Your task to perform on an android device: Open Google Chrome and click the shortcut for Amazon.com Image 0: 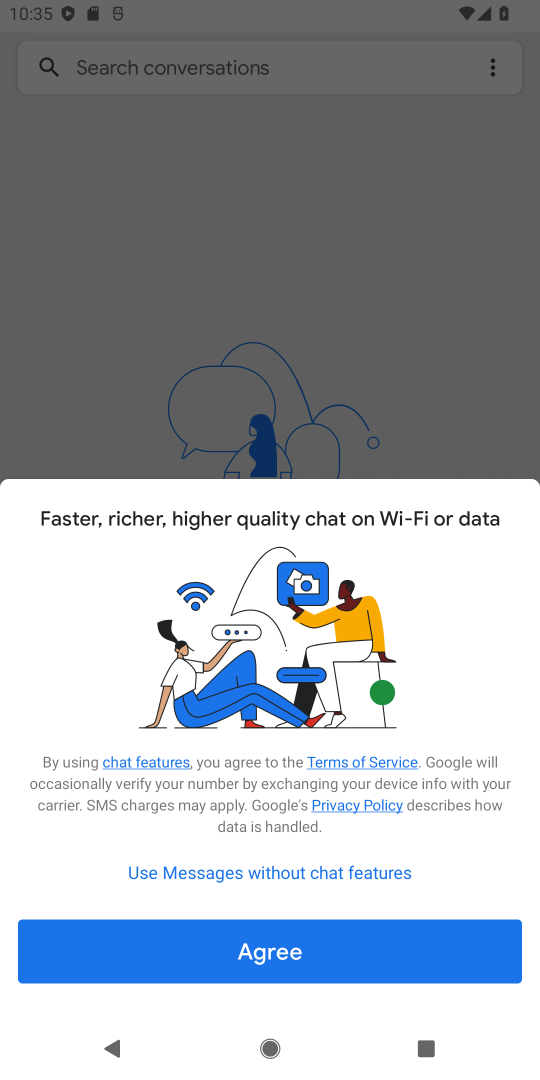
Step 0: press home button
Your task to perform on an android device: Open Google Chrome and click the shortcut for Amazon.com Image 1: 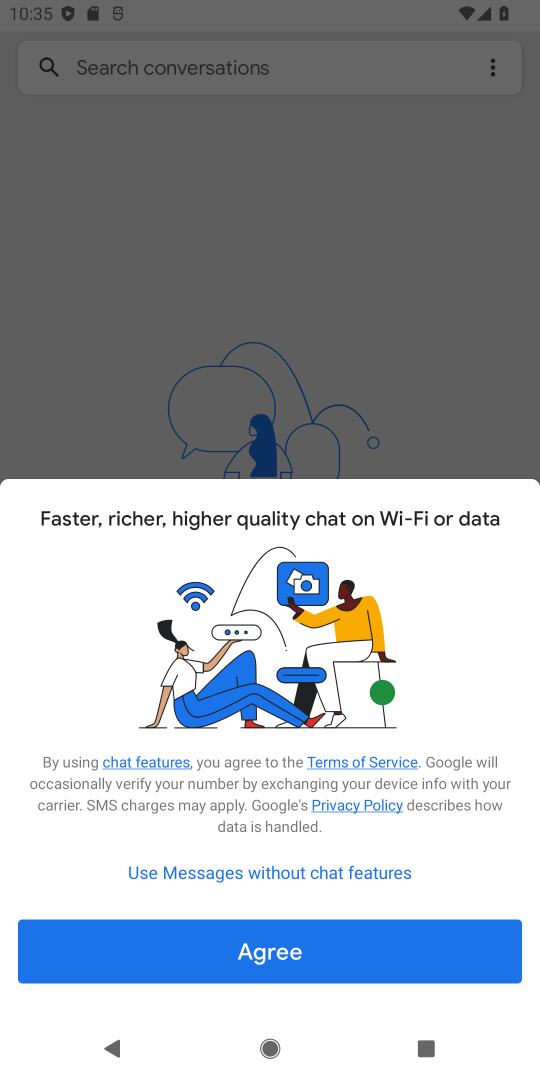
Step 1: press home button
Your task to perform on an android device: Open Google Chrome and click the shortcut for Amazon.com Image 2: 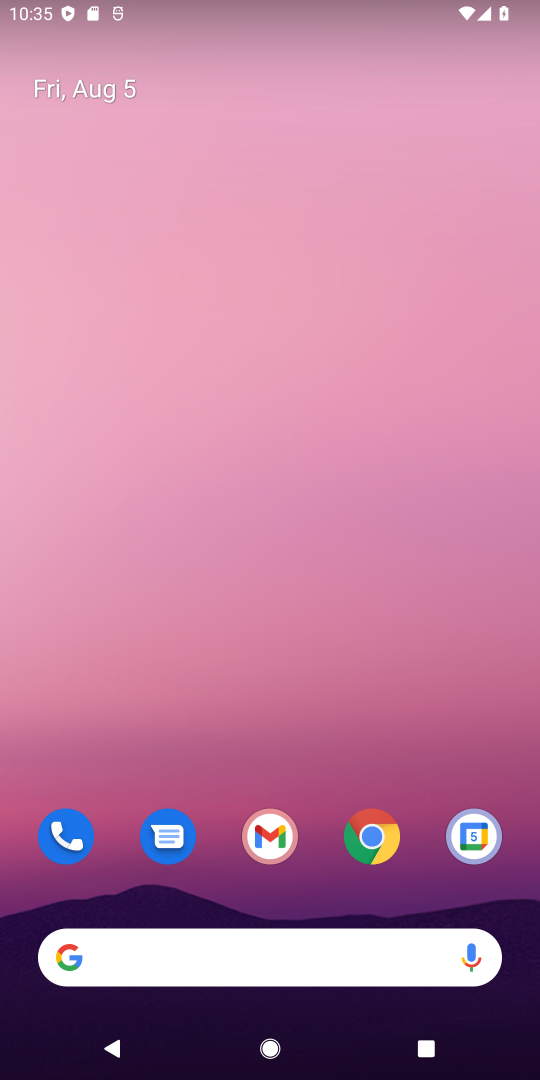
Step 2: drag from (198, 667) to (315, 41)
Your task to perform on an android device: Open Google Chrome and click the shortcut for Amazon.com Image 3: 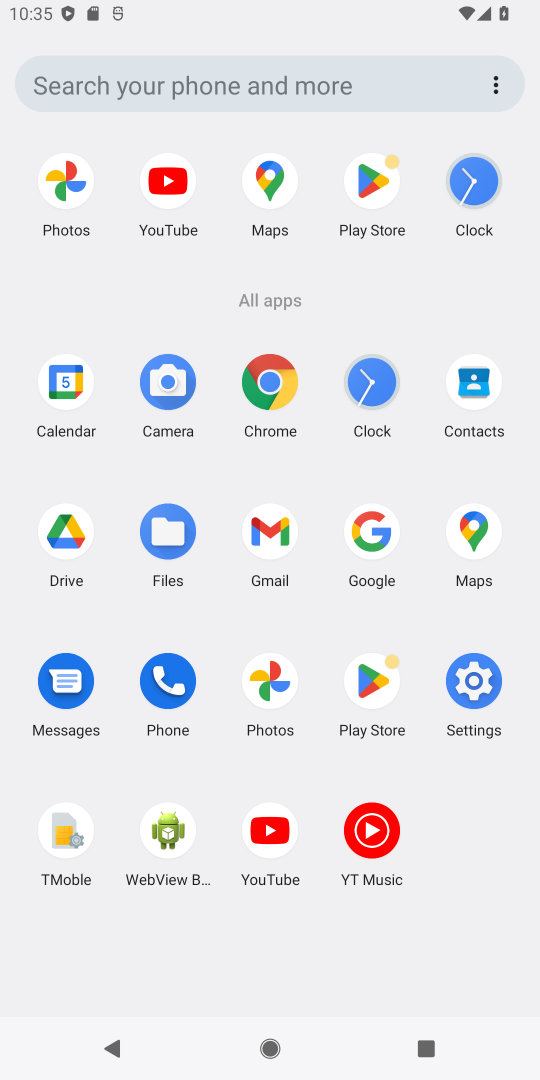
Step 3: click (267, 382)
Your task to perform on an android device: Open Google Chrome and click the shortcut for Amazon.com Image 4: 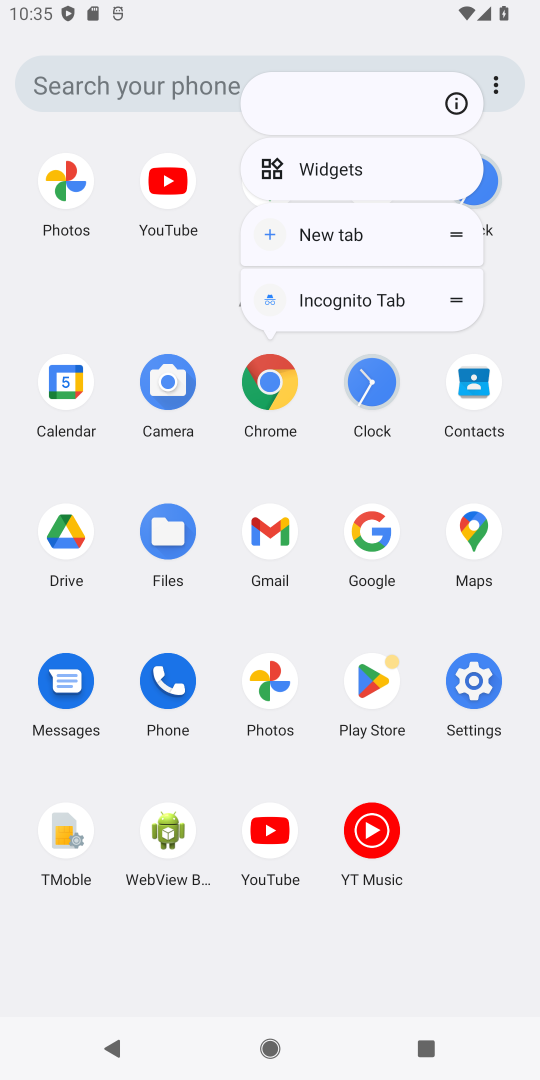
Step 4: click (269, 388)
Your task to perform on an android device: Open Google Chrome and click the shortcut for Amazon.com Image 5: 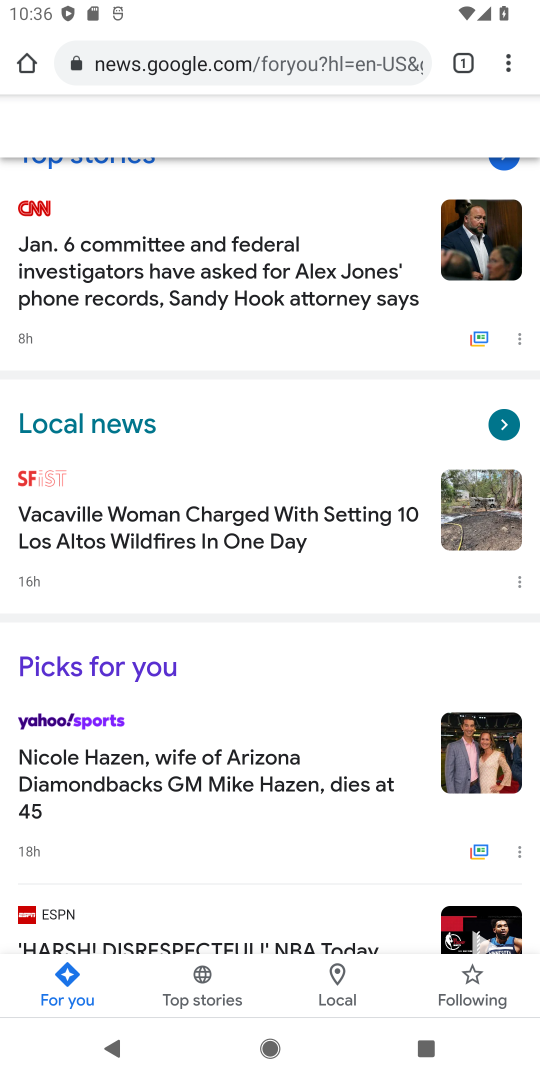
Step 5: click (287, 54)
Your task to perform on an android device: Open Google Chrome and click the shortcut for Amazon.com Image 6: 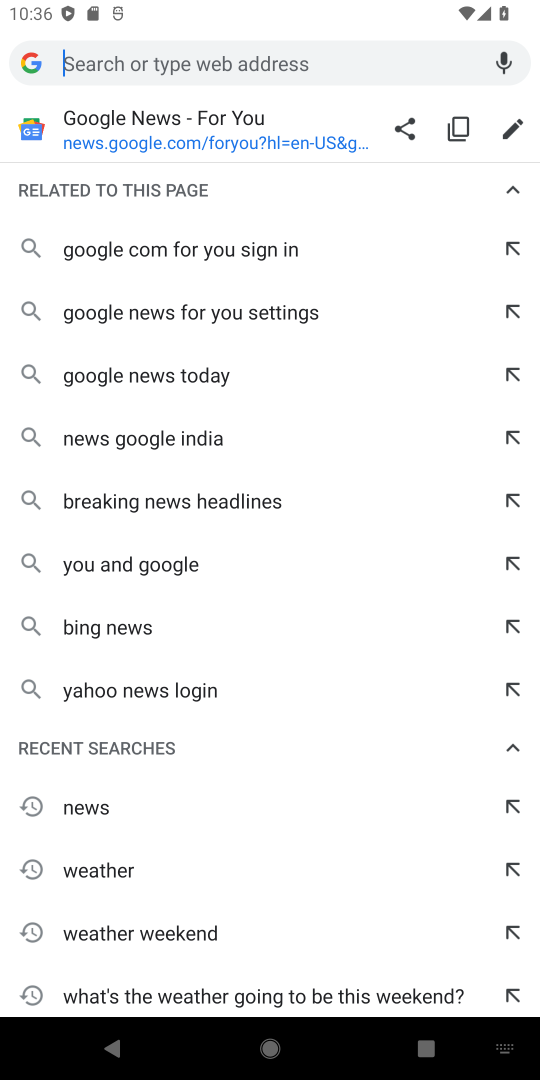
Step 6: type "amazon"
Your task to perform on an android device: Open Google Chrome and click the shortcut for Amazon.com Image 7: 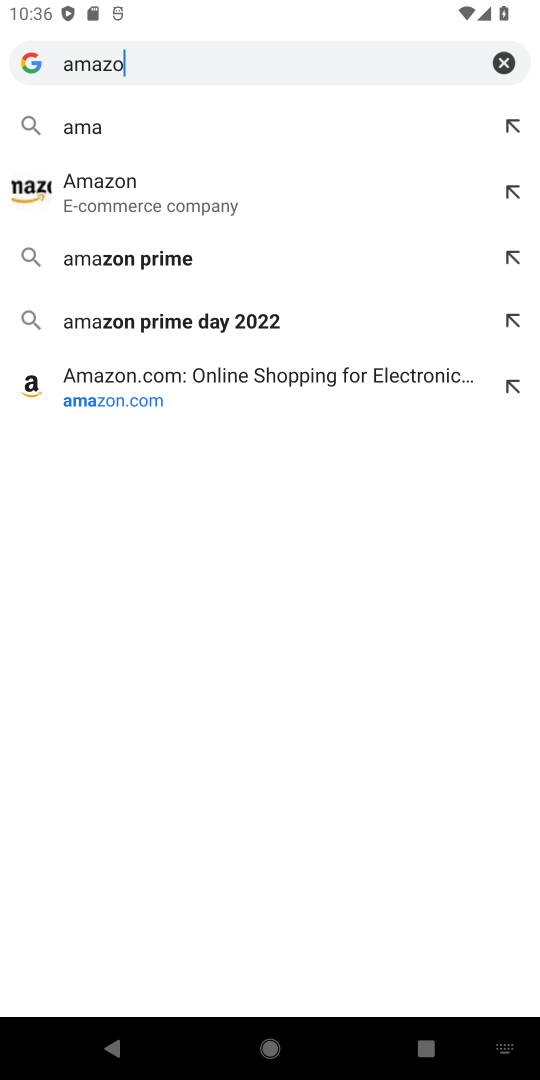
Step 7: press back button
Your task to perform on an android device: Open Google Chrome and click the shortcut for Amazon.com Image 8: 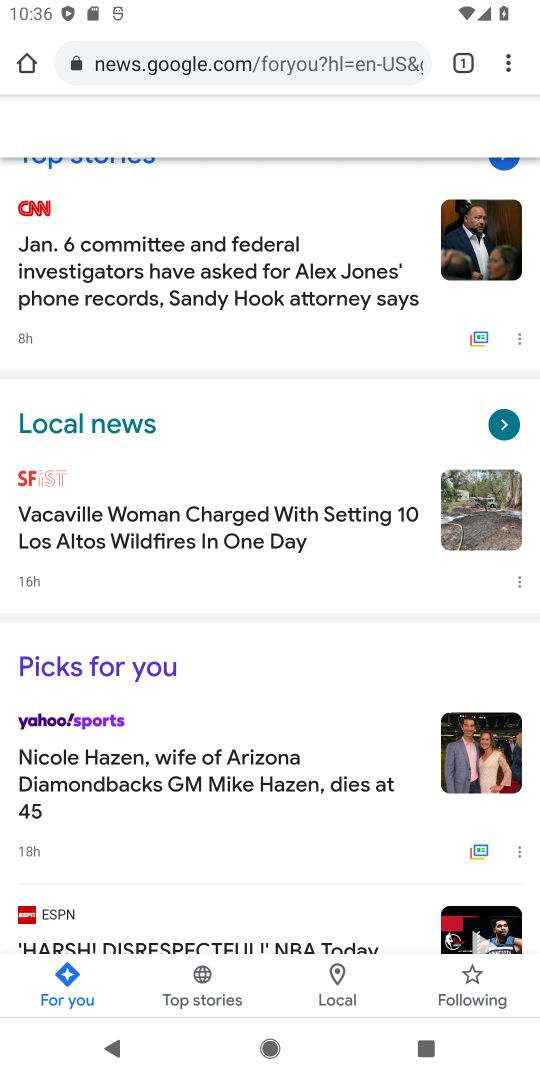
Step 8: drag from (511, 65) to (401, 191)
Your task to perform on an android device: Open Google Chrome and click the shortcut for Amazon.com Image 9: 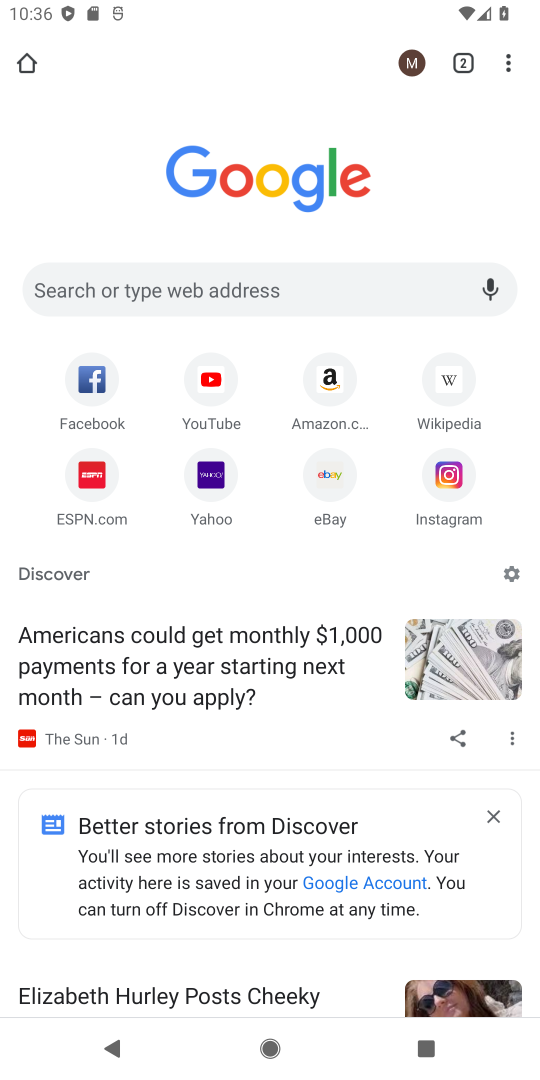
Step 9: click (339, 385)
Your task to perform on an android device: Open Google Chrome and click the shortcut for Amazon.com Image 10: 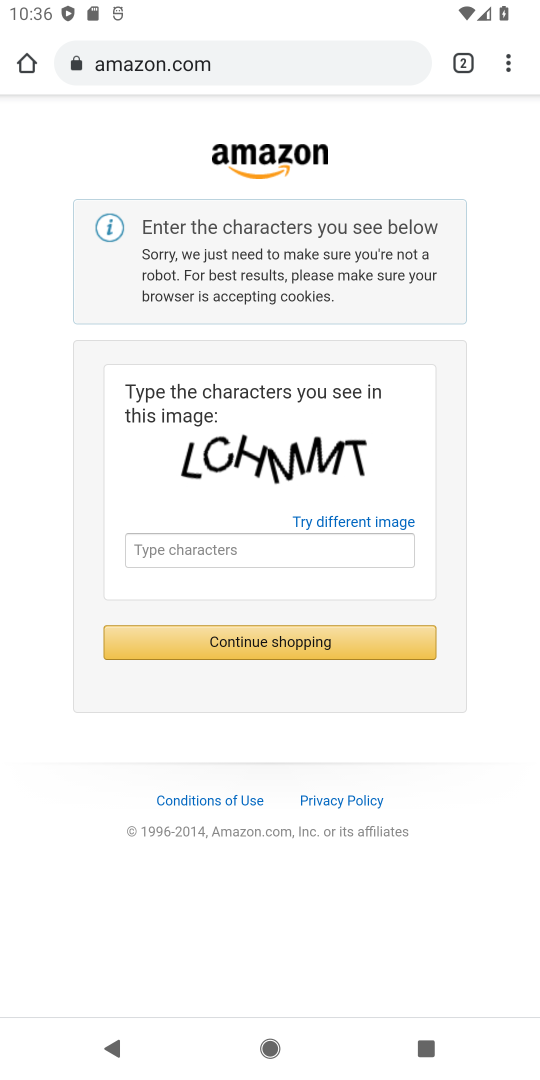
Step 10: task complete